Your task to perform on an android device: Open the web browser Image 0: 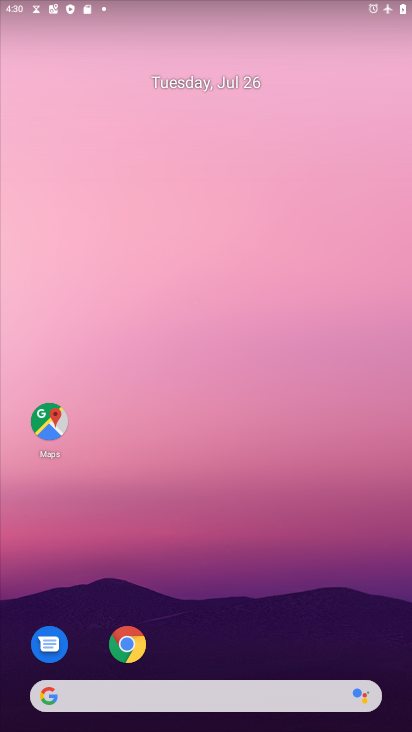
Step 0: drag from (270, 615) to (109, 75)
Your task to perform on an android device: Open the web browser Image 1: 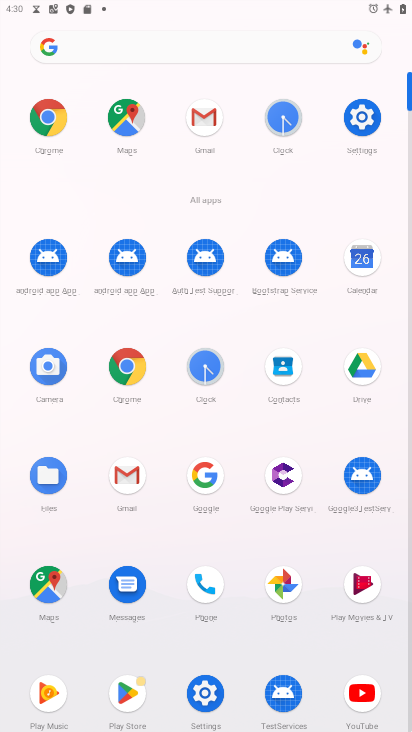
Step 1: click (35, 123)
Your task to perform on an android device: Open the web browser Image 2: 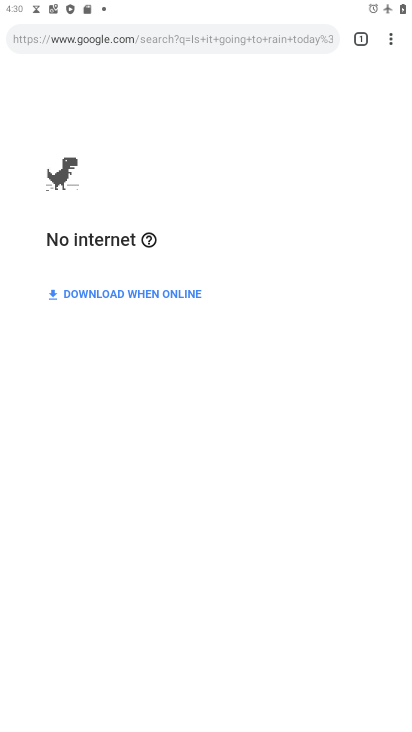
Step 2: task complete